Your task to perform on an android device: Open privacy settings Image 0: 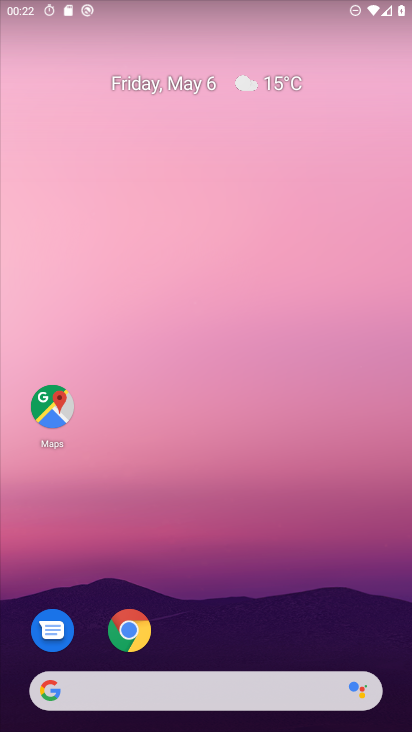
Step 0: drag from (262, 573) to (282, 47)
Your task to perform on an android device: Open privacy settings Image 1: 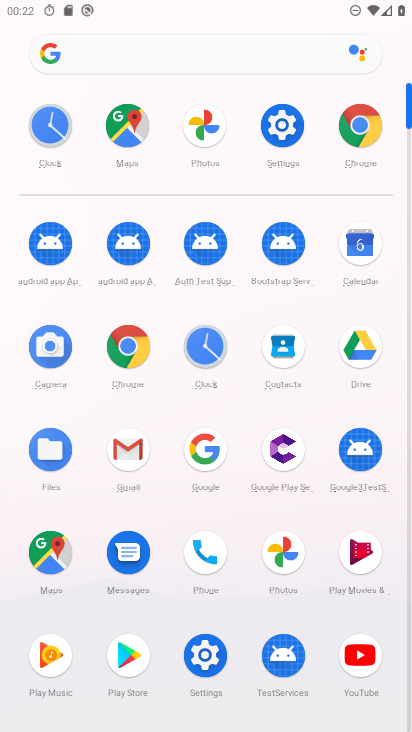
Step 1: click (292, 120)
Your task to perform on an android device: Open privacy settings Image 2: 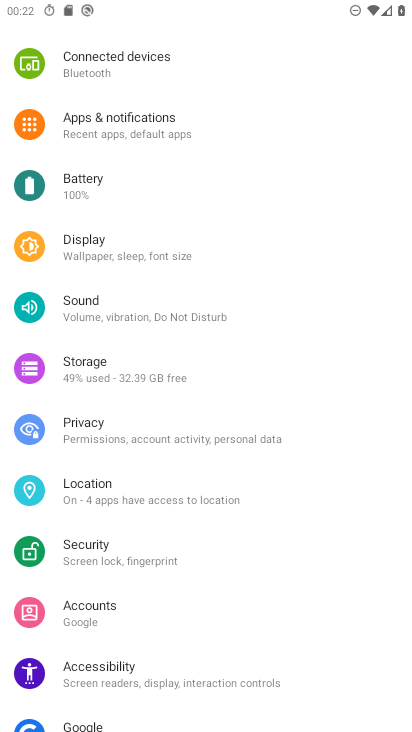
Step 2: click (123, 425)
Your task to perform on an android device: Open privacy settings Image 3: 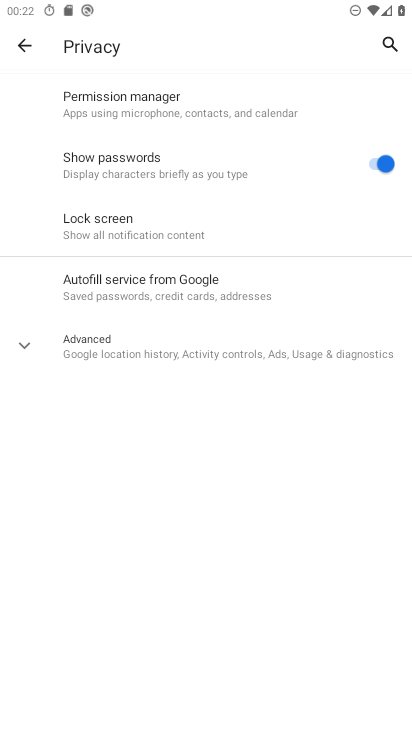
Step 3: task complete